Your task to perform on an android device: Open ESPN.com Image 0: 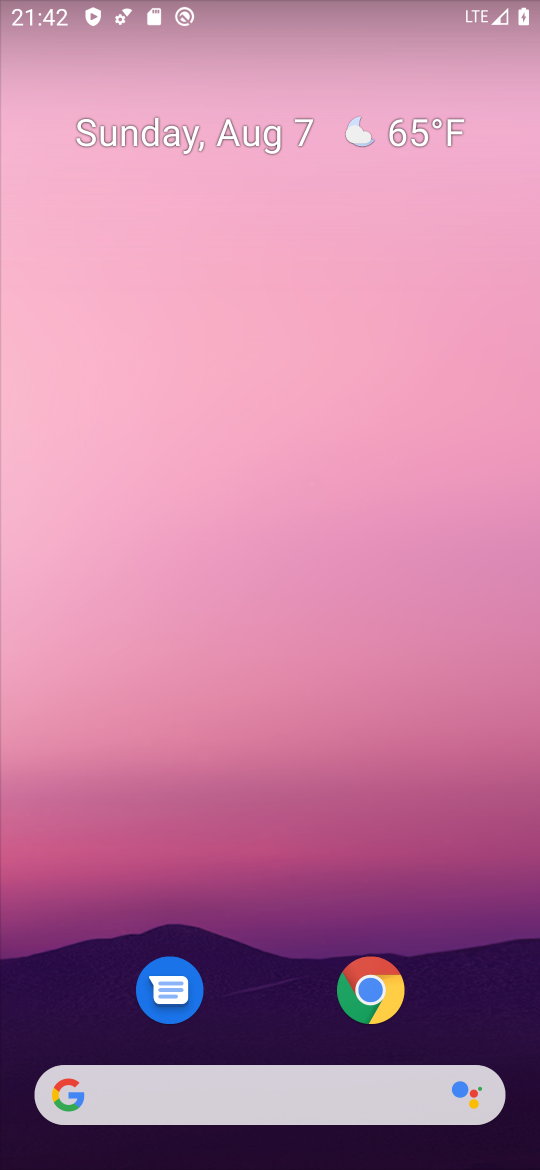
Step 0: click (270, 1084)
Your task to perform on an android device: Open ESPN.com Image 1: 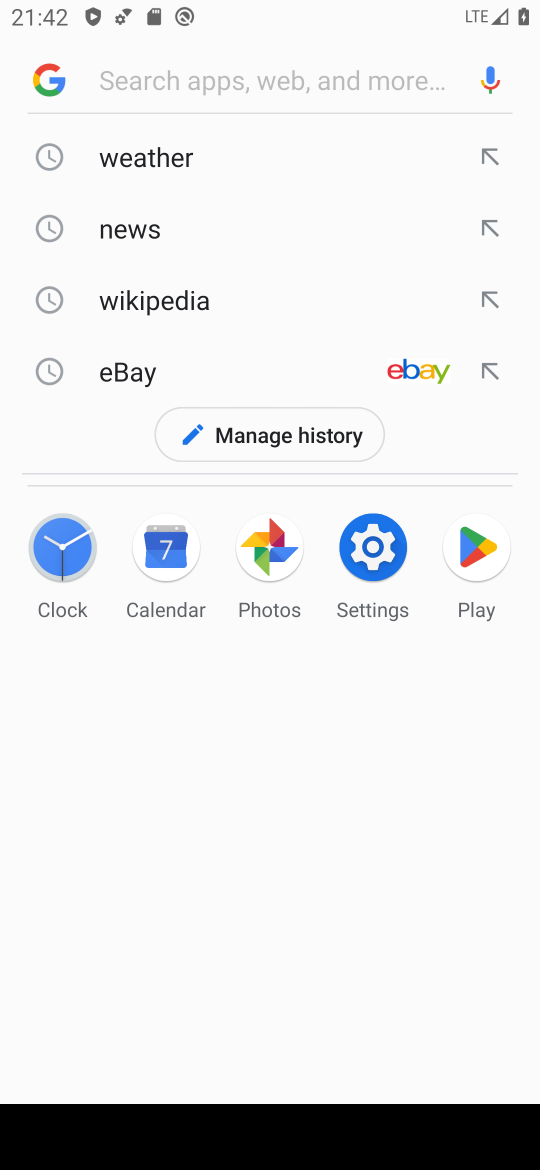
Step 1: type "espn.com"
Your task to perform on an android device: Open ESPN.com Image 2: 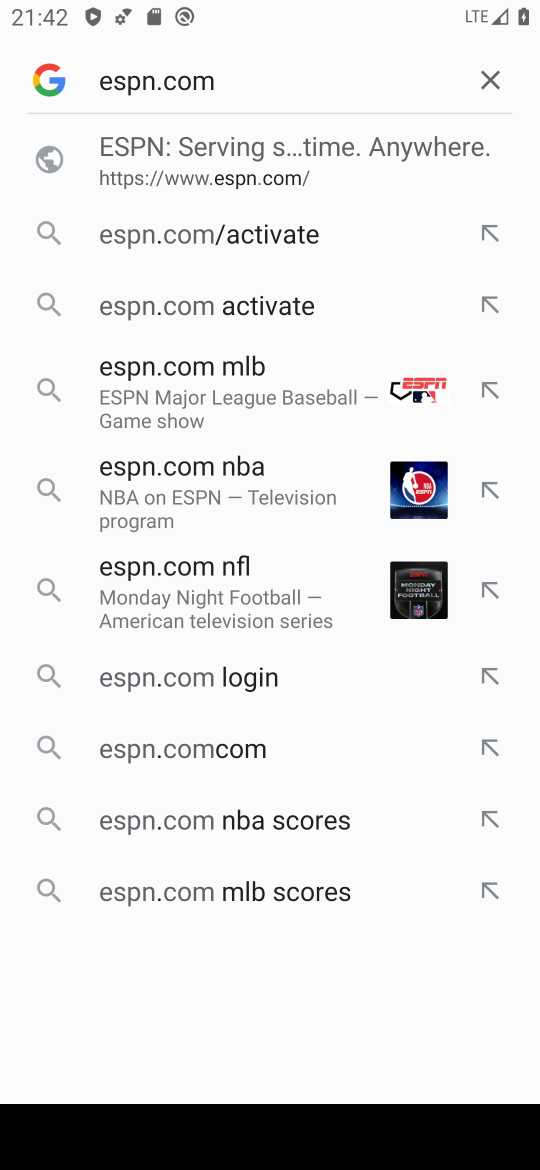
Step 2: click (270, 170)
Your task to perform on an android device: Open ESPN.com Image 3: 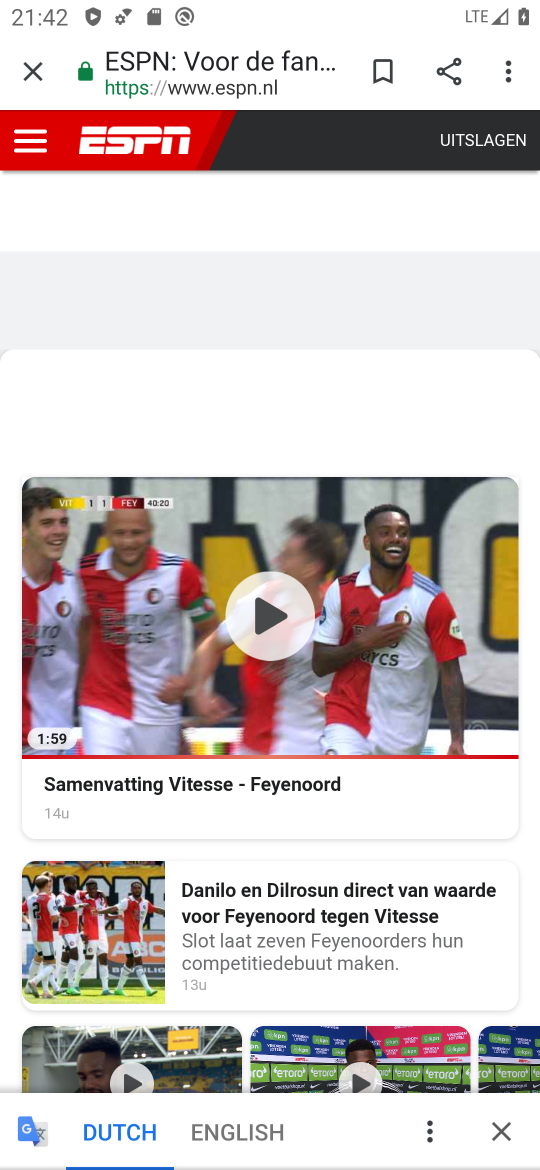
Step 3: task complete